Your task to perform on an android device: Show me popular videos on Youtube Image 0: 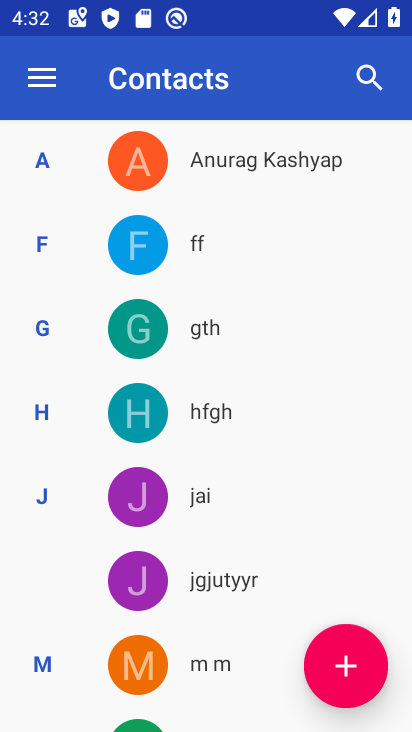
Step 0: press back button
Your task to perform on an android device: Show me popular videos on Youtube Image 1: 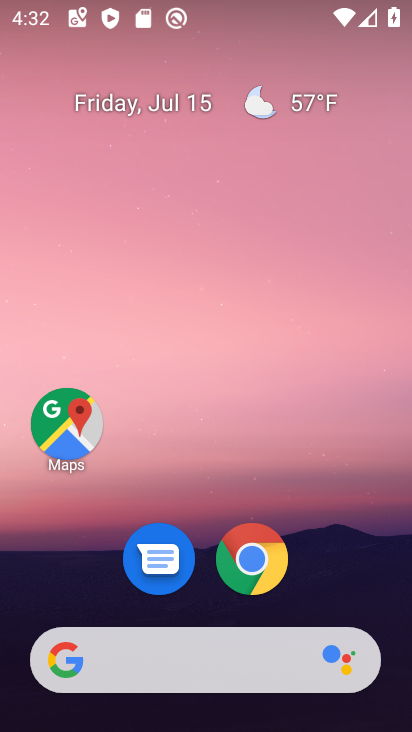
Step 1: drag from (64, 585) to (200, 74)
Your task to perform on an android device: Show me popular videos on Youtube Image 2: 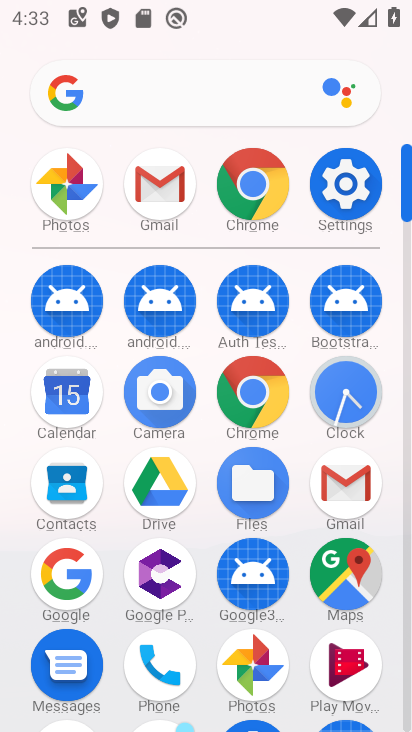
Step 2: drag from (145, 661) to (196, 217)
Your task to perform on an android device: Show me popular videos on Youtube Image 3: 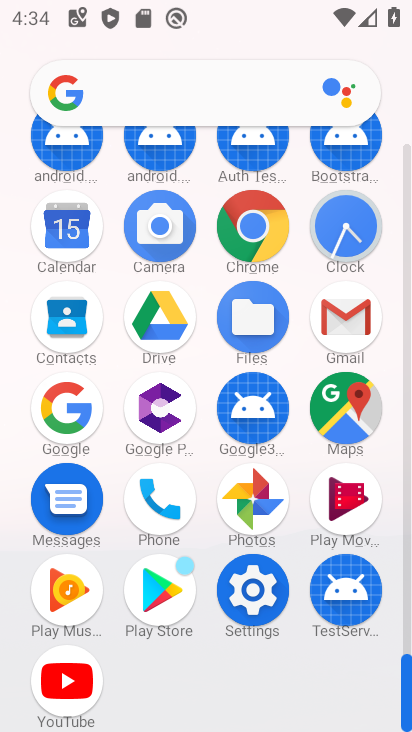
Step 3: click (77, 669)
Your task to perform on an android device: Show me popular videos on Youtube Image 4: 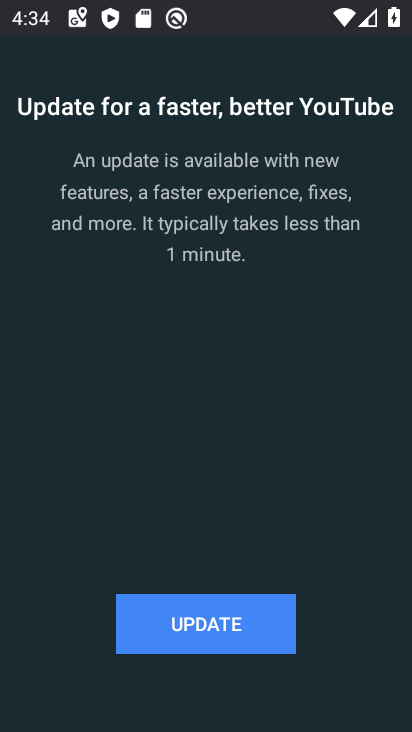
Step 4: task complete